Your task to perform on an android device: turn off location history Image 0: 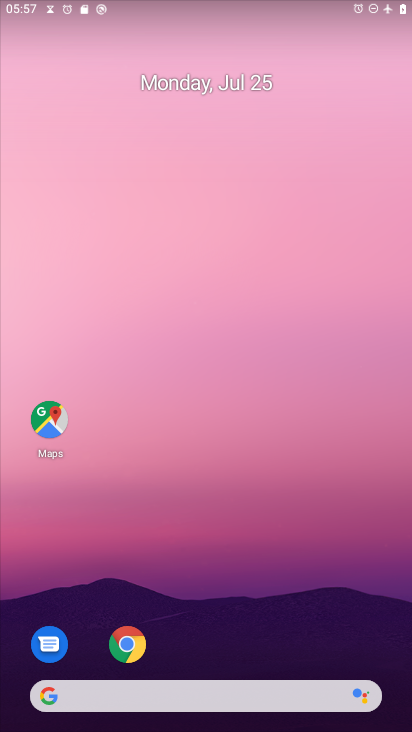
Step 0: press home button
Your task to perform on an android device: turn off location history Image 1: 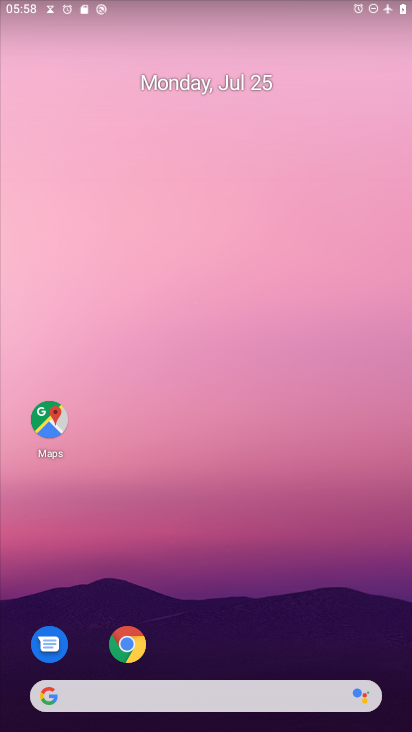
Step 1: drag from (227, 633) to (256, 205)
Your task to perform on an android device: turn off location history Image 2: 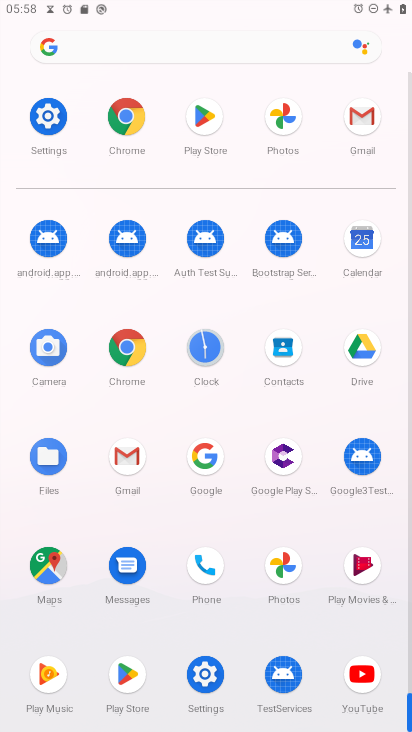
Step 2: click (35, 118)
Your task to perform on an android device: turn off location history Image 3: 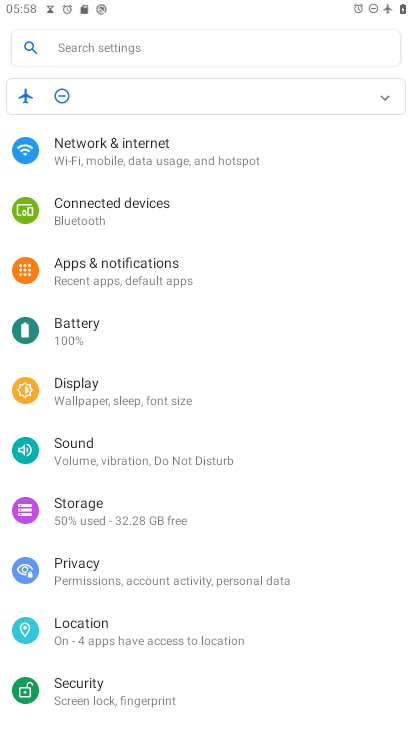
Step 3: click (86, 634)
Your task to perform on an android device: turn off location history Image 4: 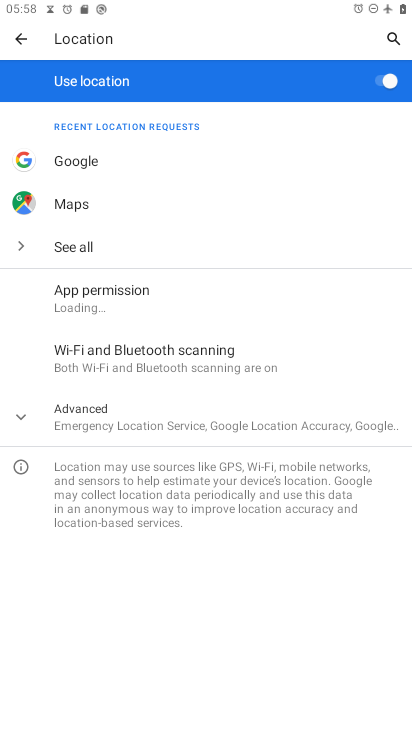
Step 4: click (117, 429)
Your task to perform on an android device: turn off location history Image 5: 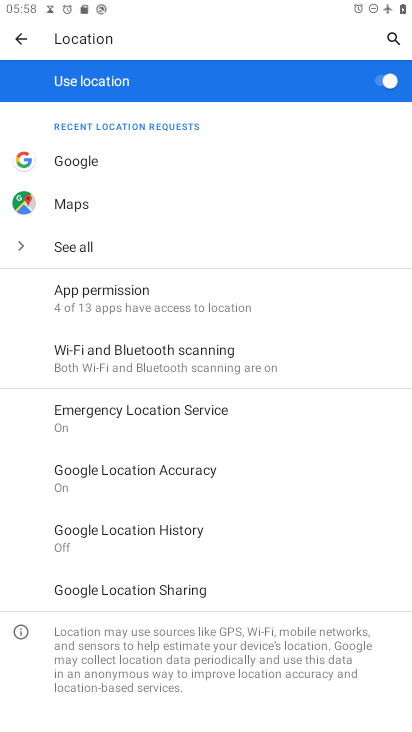
Step 5: click (135, 536)
Your task to perform on an android device: turn off location history Image 6: 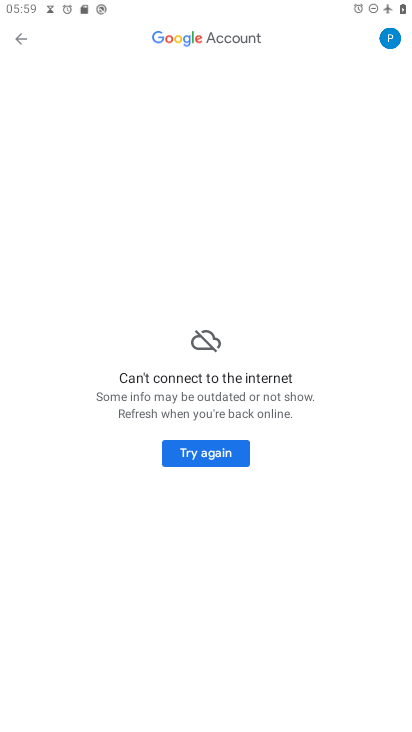
Step 6: click (206, 450)
Your task to perform on an android device: turn off location history Image 7: 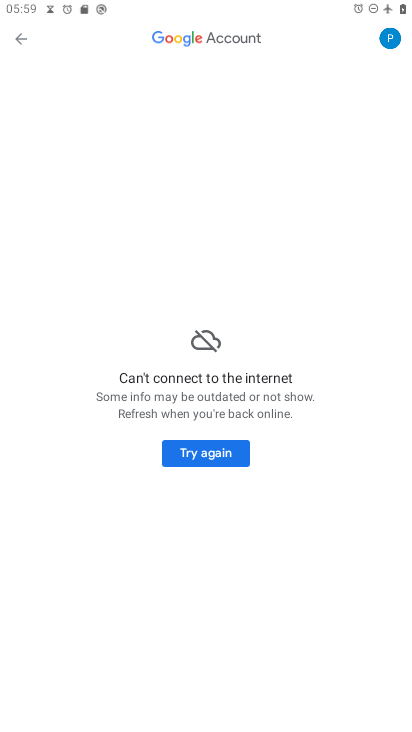
Step 7: task complete